Your task to perform on an android device: toggle improve location accuracy Image 0: 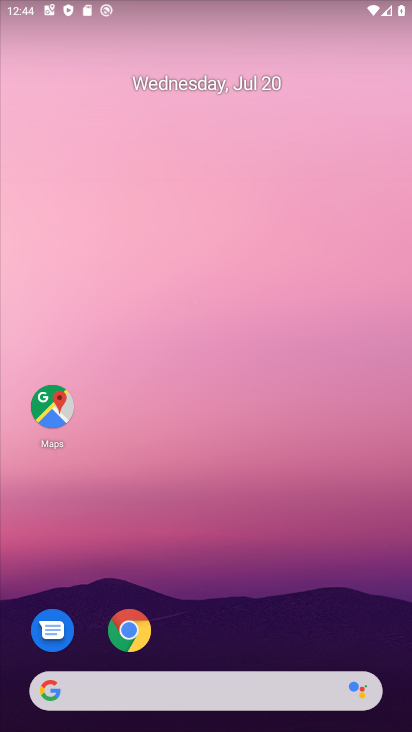
Step 0: drag from (201, 346) to (197, 12)
Your task to perform on an android device: toggle improve location accuracy Image 1: 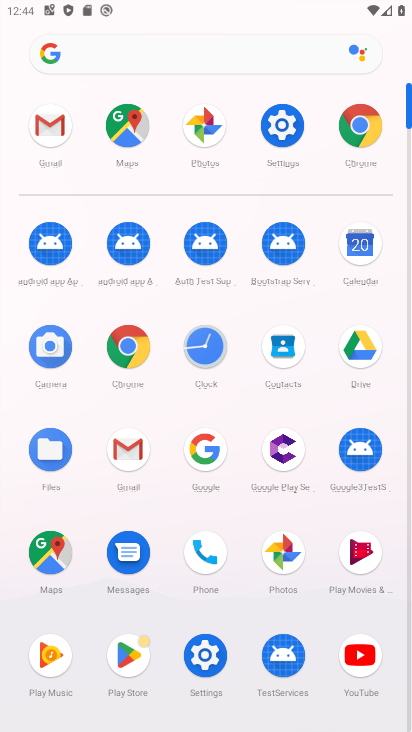
Step 1: click (289, 128)
Your task to perform on an android device: toggle improve location accuracy Image 2: 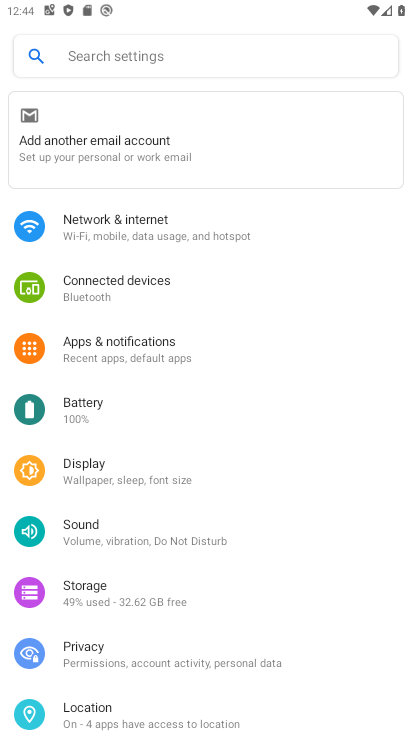
Step 2: click (91, 704)
Your task to perform on an android device: toggle improve location accuracy Image 3: 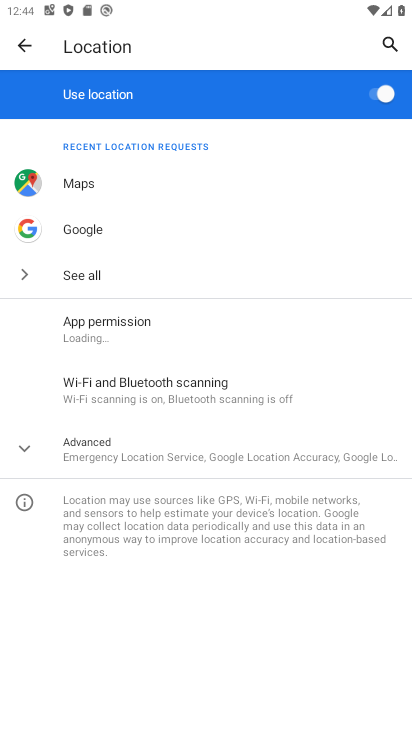
Step 3: click (21, 446)
Your task to perform on an android device: toggle improve location accuracy Image 4: 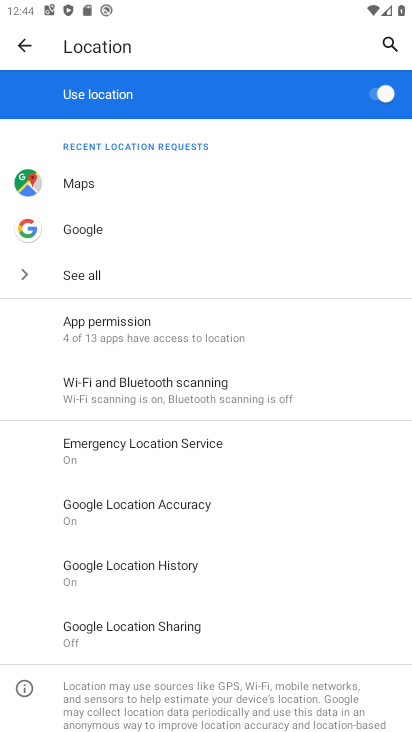
Step 4: click (162, 502)
Your task to perform on an android device: toggle improve location accuracy Image 5: 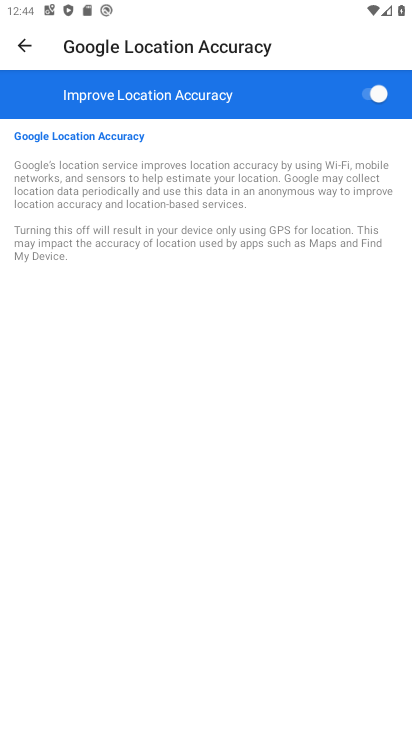
Step 5: click (372, 89)
Your task to perform on an android device: toggle improve location accuracy Image 6: 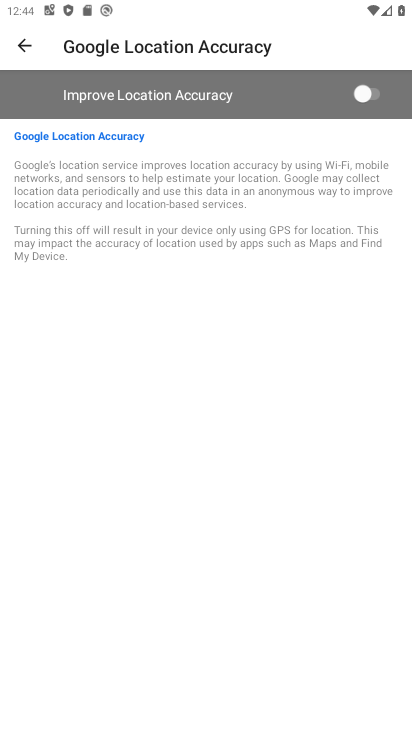
Step 6: task complete